Your task to perform on an android device: change the clock display to analog Image 0: 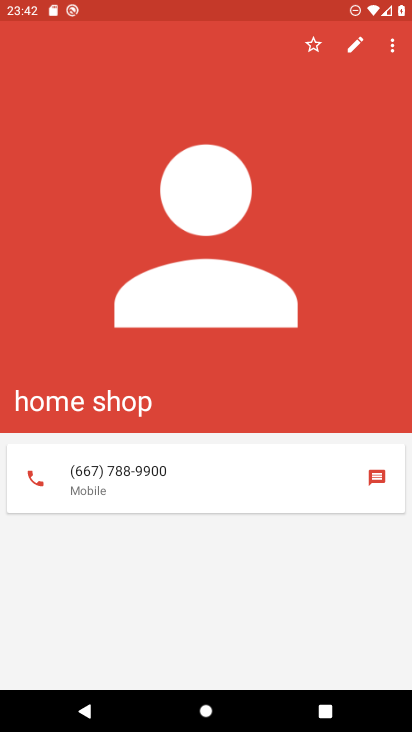
Step 0: press home button
Your task to perform on an android device: change the clock display to analog Image 1: 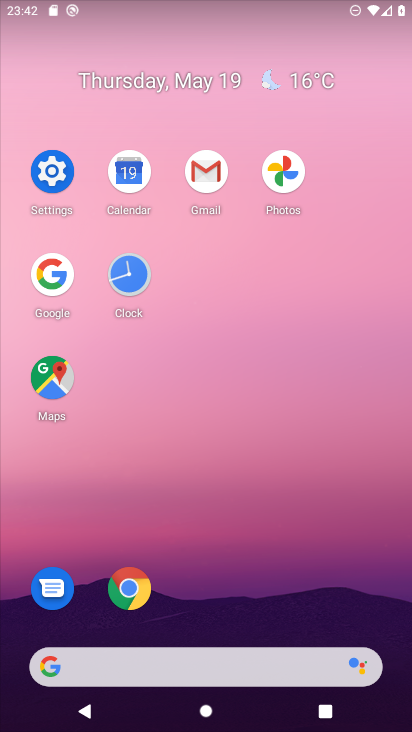
Step 1: click (139, 270)
Your task to perform on an android device: change the clock display to analog Image 2: 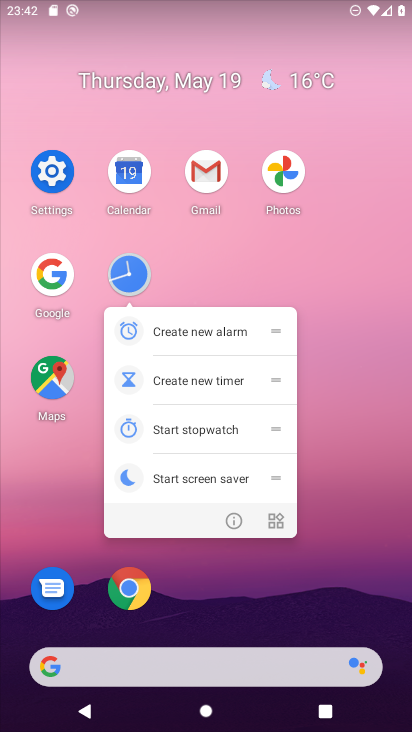
Step 2: click (142, 263)
Your task to perform on an android device: change the clock display to analog Image 3: 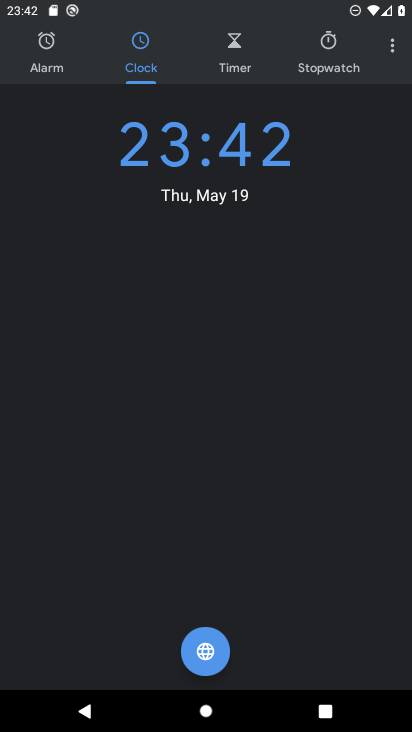
Step 3: click (394, 50)
Your task to perform on an android device: change the clock display to analog Image 4: 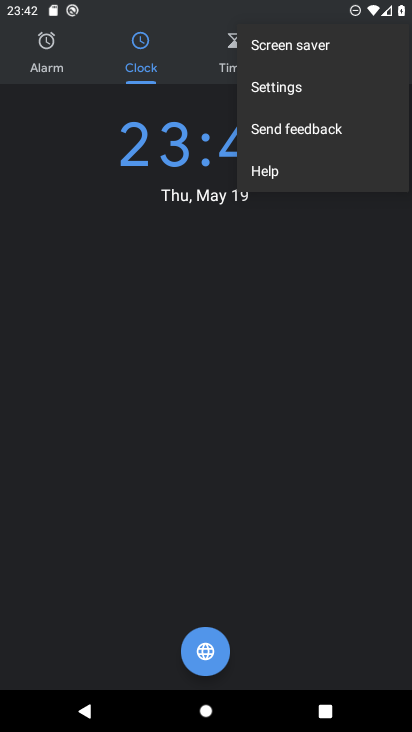
Step 4: click (270, 79)
Your task to perform on an android device: change the clock display to analog Image 5: 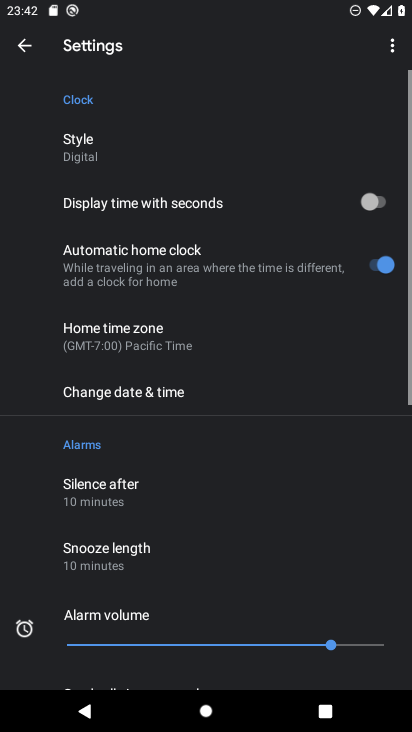
Step 5: click (111, 136)
Your task to perform on an android device: change the clock display to analog Image 6: 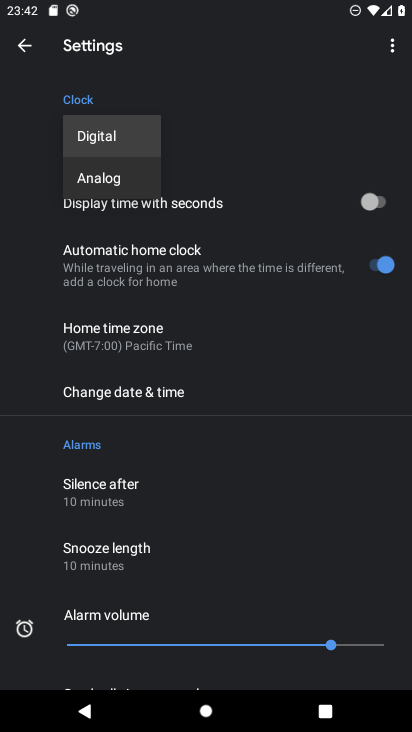
Step 6: click (88, 177)
Your task to perform on an android device: change the clock display to analog Image 7: 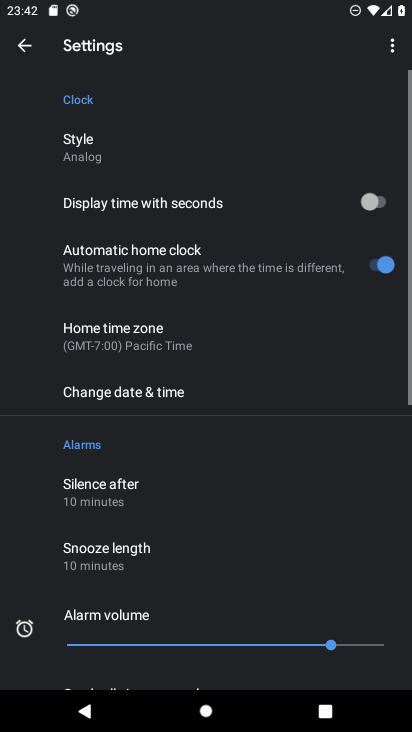
Step 7: task complete